Your task to perform on an android device: change the clock display to digital Image 0: 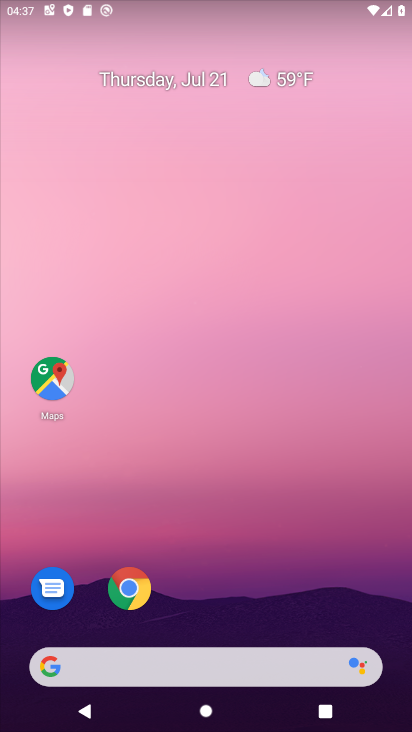
Step 0: drag from (190, 584) to (218, 186)
Your task to perform on an android device: change the clock display to digital Image 1: 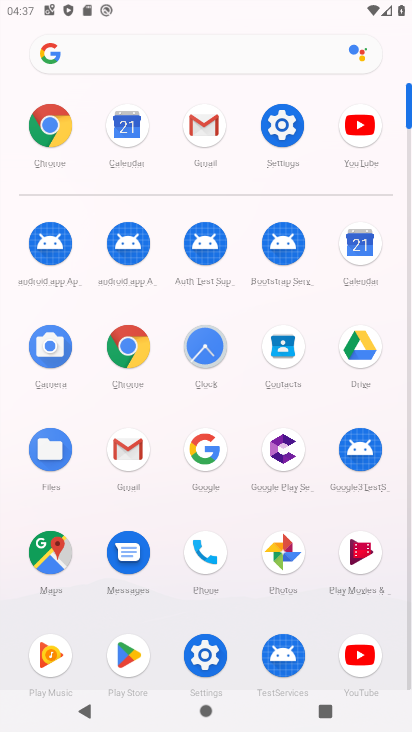
Step 1: click (203, 356)
Your task to perform on an android device: change the clock display to digital Image 2: 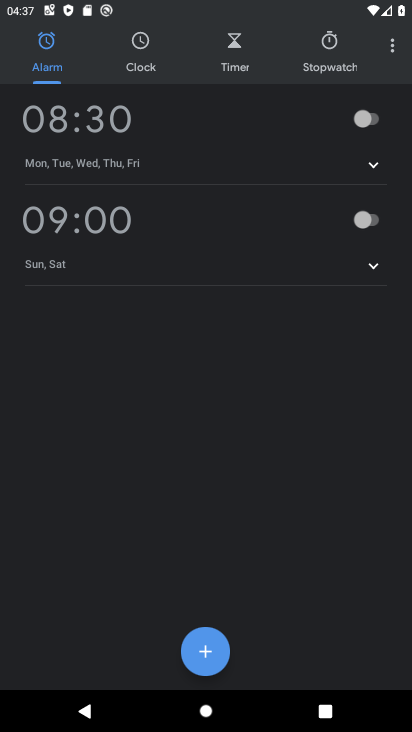
Step 2: click (394, 51)
Your task to perform on an android device: change the clock display to digital Image 3: 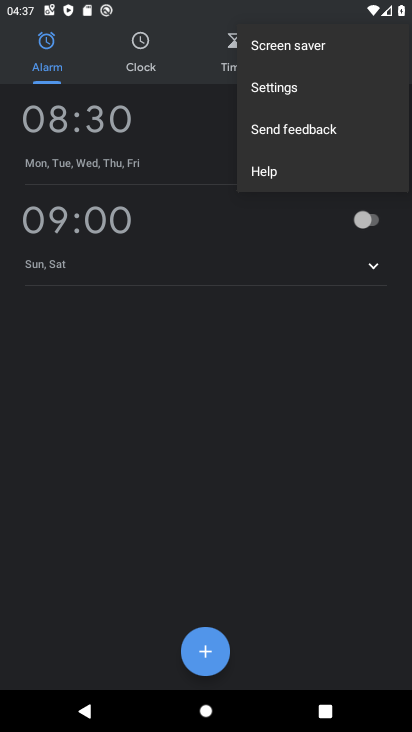
Step 3: click (287, 99)
Your task to perform on an android device: change the clock display to digital Image 4: 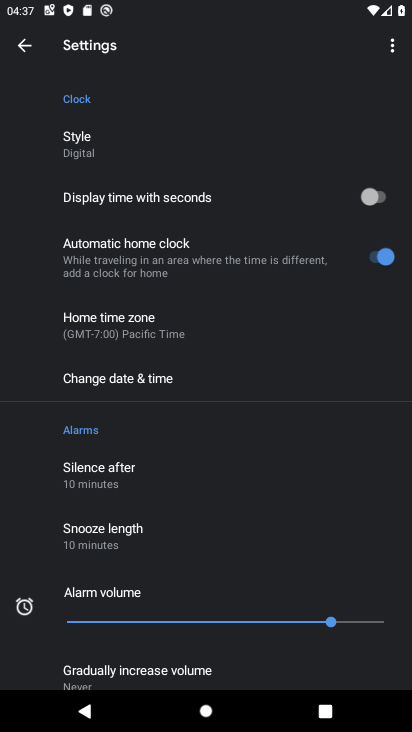
Step 4: click (85, 137)
Your task to perform on an android device: change the clock display to digital Image 5: 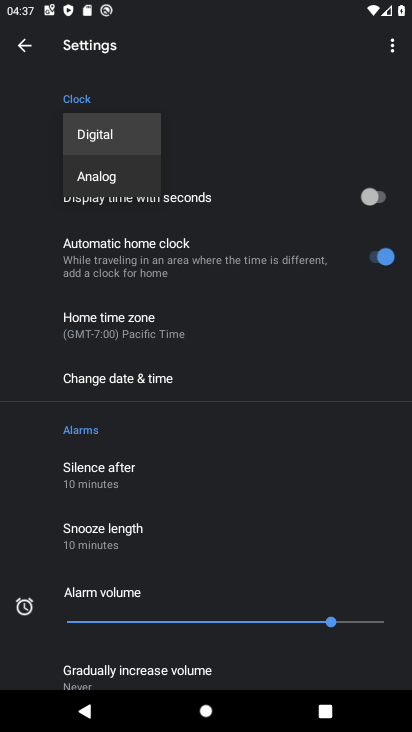
Step 5: task complete